Your task to perform on an android device: search for starred emails in the gmail app Image 0: 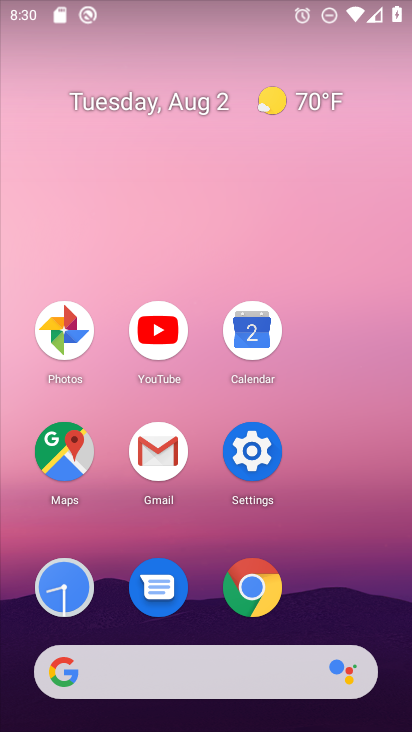
Step 0: click (151, 449)
Your task to perform on an android device: search for starred emails in the gmail app Image 1: 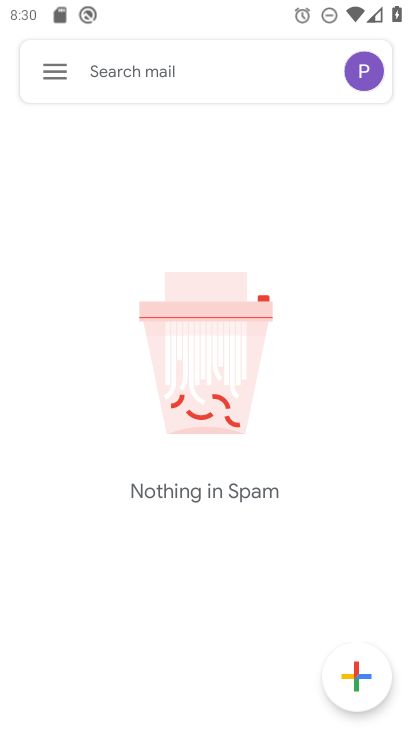
Step 1: click (53, 65)
Your task to perform on an android device: search for starred emails in the gmail app Image 2: 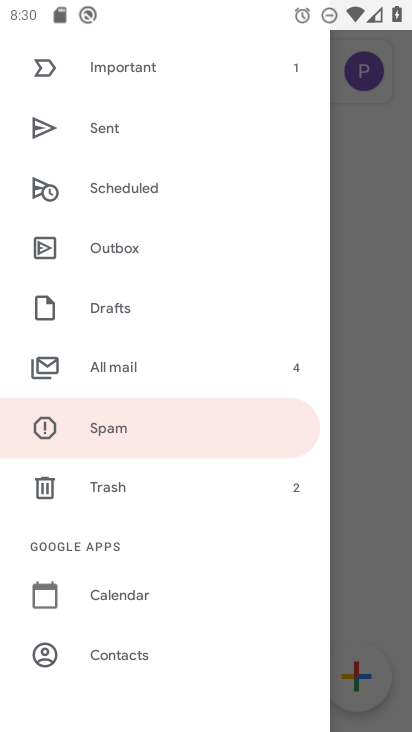
Step 2: drag from (204, 262) to (188, 608)
Your task to perform on an android device: search for starred emails in the gmail app Image 3: 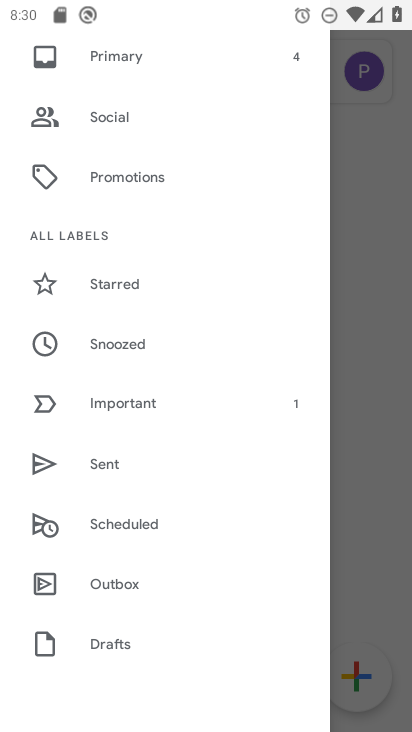
Step 3: click (118, 285)
Your task to perform on an android device: search for starred emails in the gmail app Image 4: 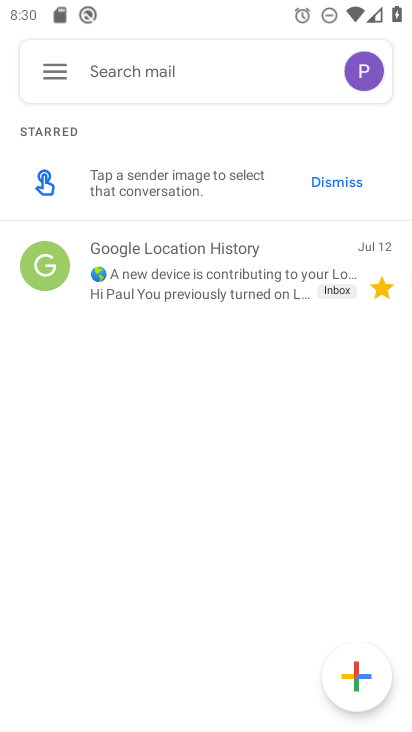
Step 4: task complete